Your task to perform on an android device: change alarm snooze length Image 0: 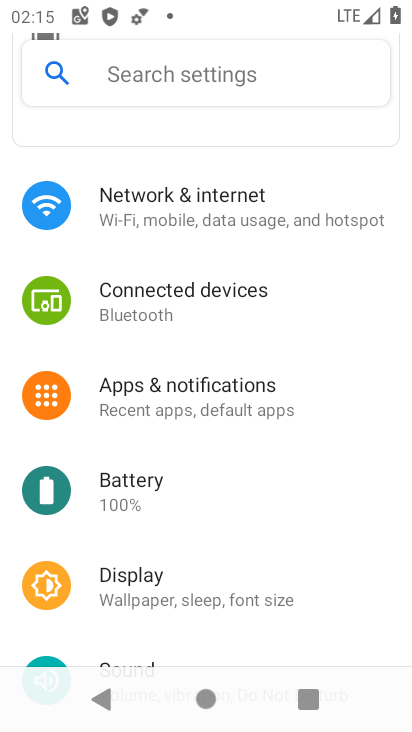
Step 0: press home button
Your task to perform on an android device: change alarm snooze length Image 1: 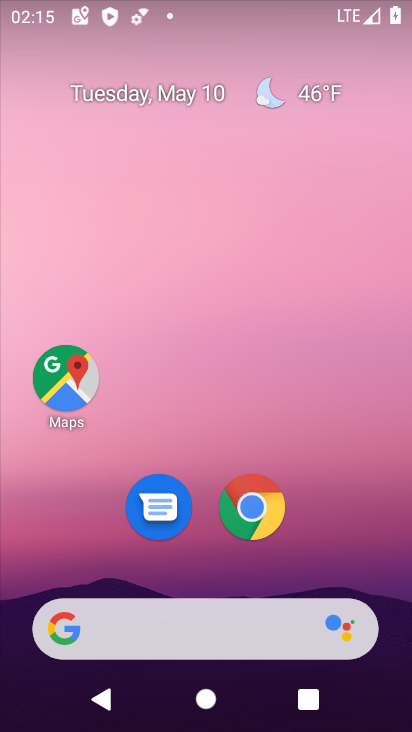
Step 1: drag from (224, 642) to (194, 167)
Your task to perform on an android device: change alarm snooze length Image 2: 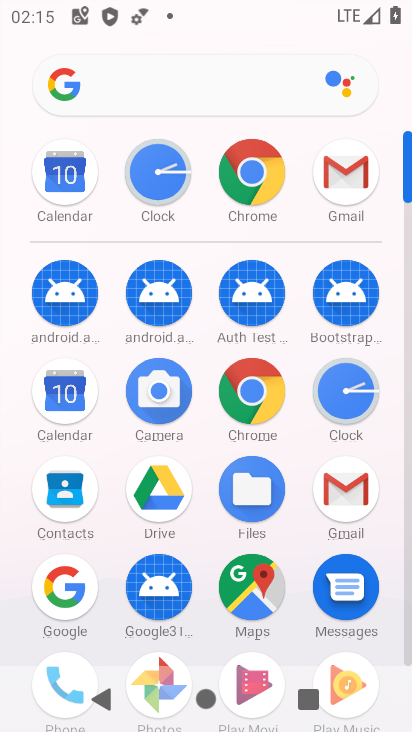
Step 2: click (335, 398)
Your task to perform on an android device: change alarm snooze length Image 3: 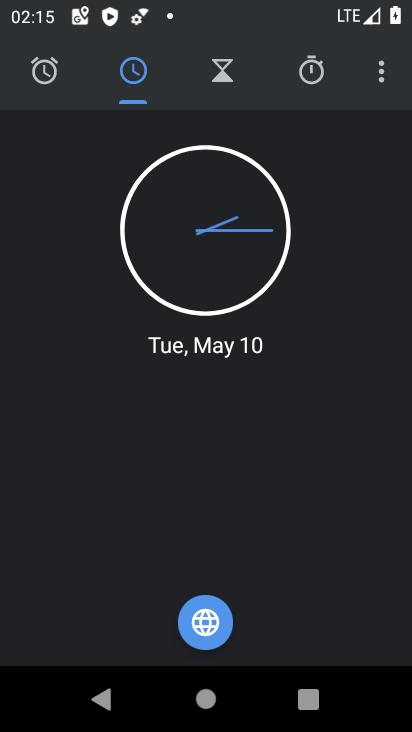
Step 3: click (388, 85)
Your task to perform on an android device: change alarm snooze length Image 4: 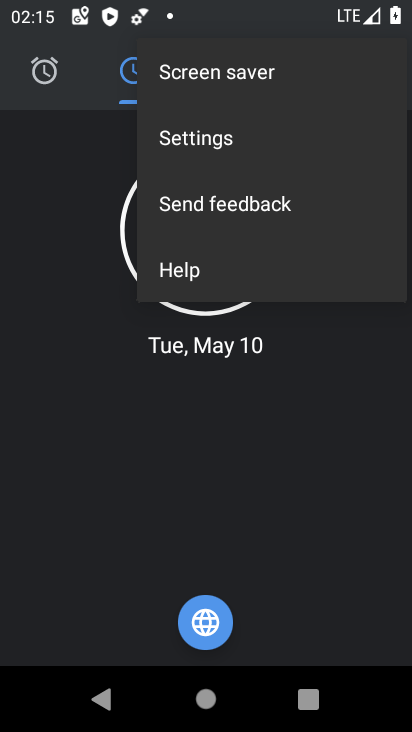
Step 4: click (211, 146)
Your task to perform on an android device: change alarm snooze length Image 5: 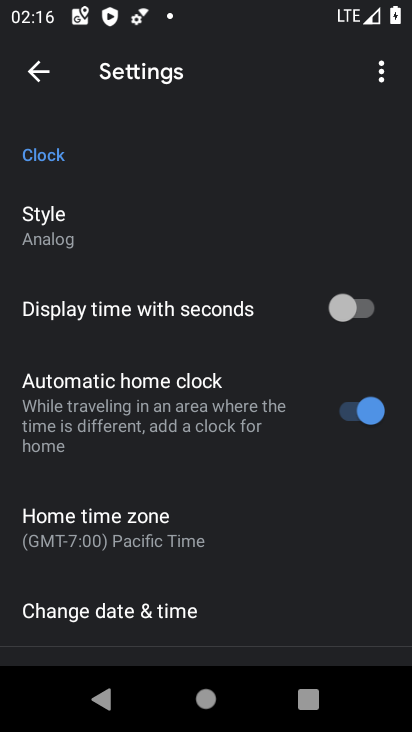
Step 5: drag from (179, 605) to (121, 201)
Your task to perform on an android device: change alarm snooze length Image 6: 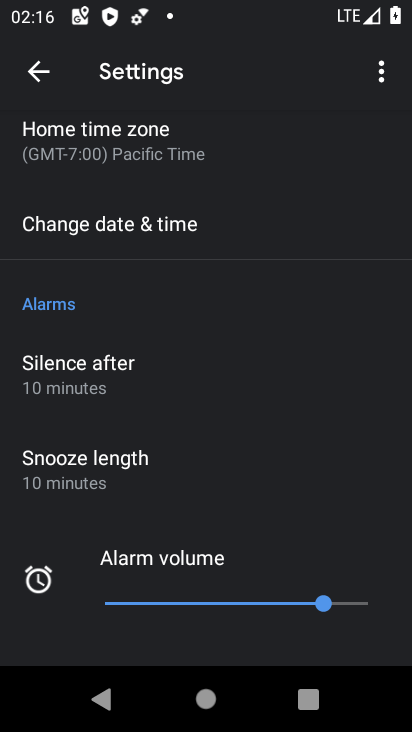
Step 6: drag from (89, 465) to (119, 297)
Your task to perform on an android device: change alarm snooze length Image 7: 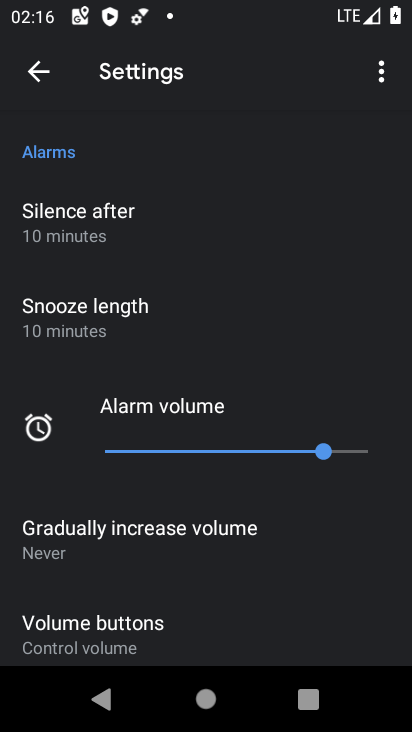
Step 7: click (133, 319)
Your task to perform on an android device: change alarm snooze length Image 8: 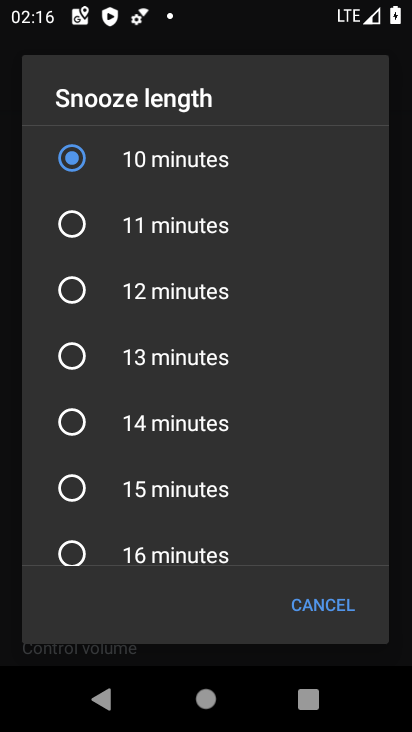
Step 8: click (168, 293)
Your task to perform on an android device: change alarm snooze length Image 9: 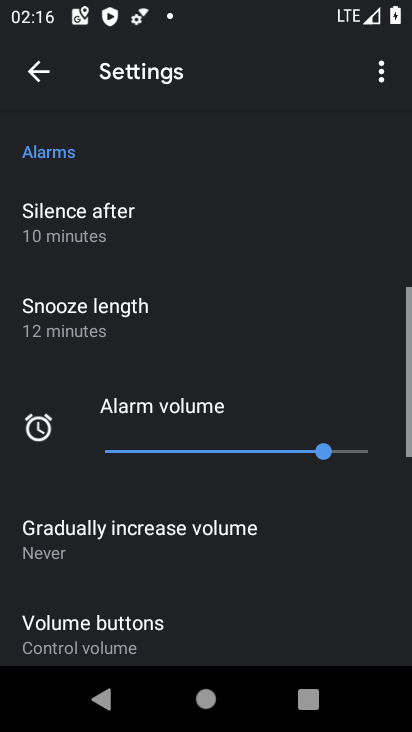
Step 9: task complete